Your task to perform on an android device: turn off airplane mode Image 0: 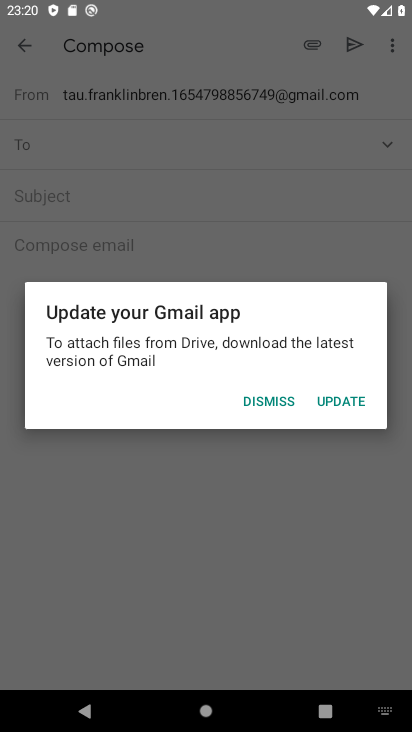
Step 0: press home button
Your task to perform on an android device: turn off airplane mode Image 1: 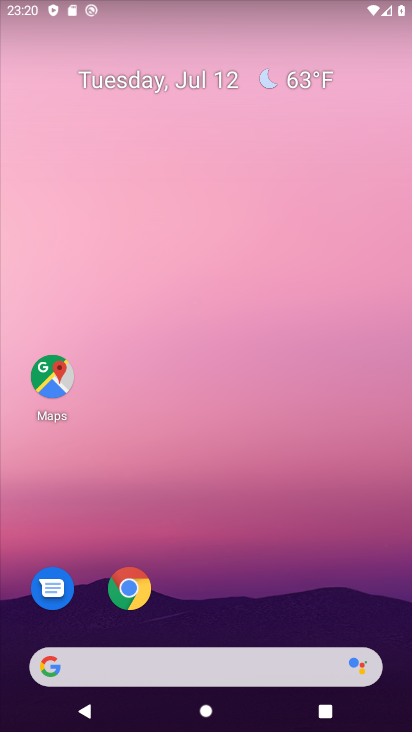
Step 1: drag from (75, 501) to (228, 98)
Your task to perform on an android device: turn off airplane mode Image 2: 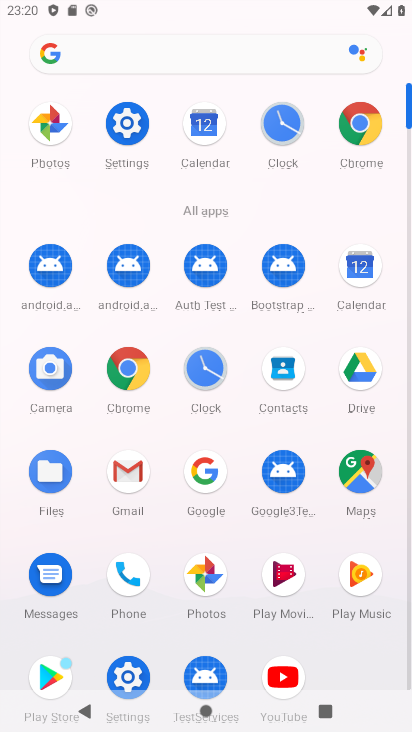
Step 2: click (129, 672)
Your task to perform on an android device: turn off airplane mode Image 3: 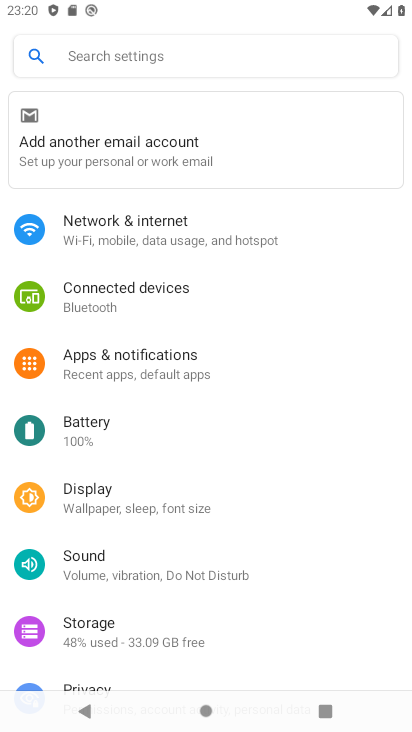
Step 3: click (146, 239)
Your task to perform on an android device: turn off airplane mode Image 4: 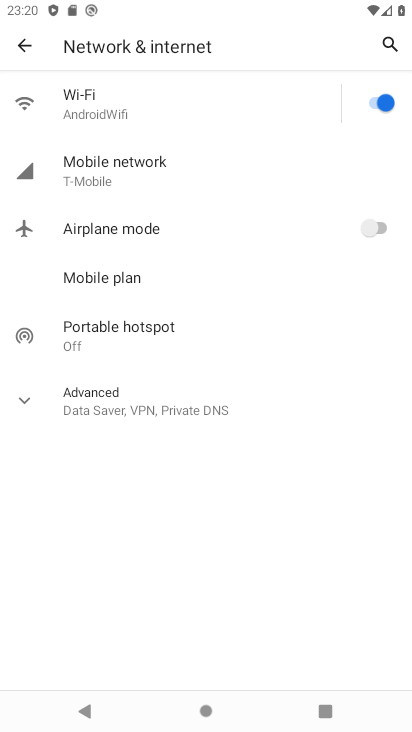
Step 4: click (383, 98)
Your task to perform on an android device: turn off airplane mode Image 5: 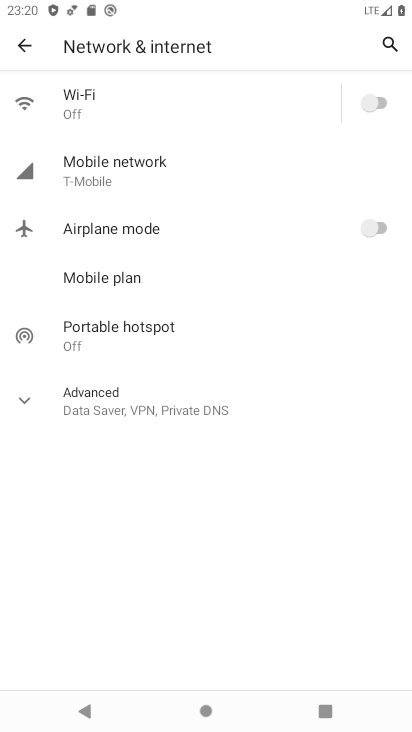
Step 5: click (361, 101)
Your task to perform on an android device: turn off airplane mode Image 6: 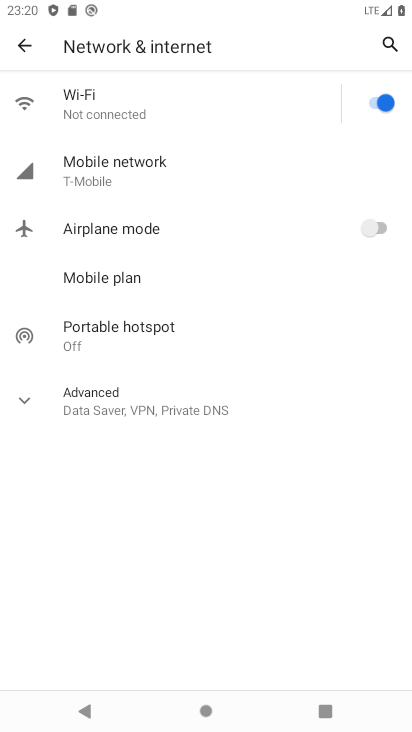
Step 6: task complete